Your task to perform on an android device: Go to Google Image 0: 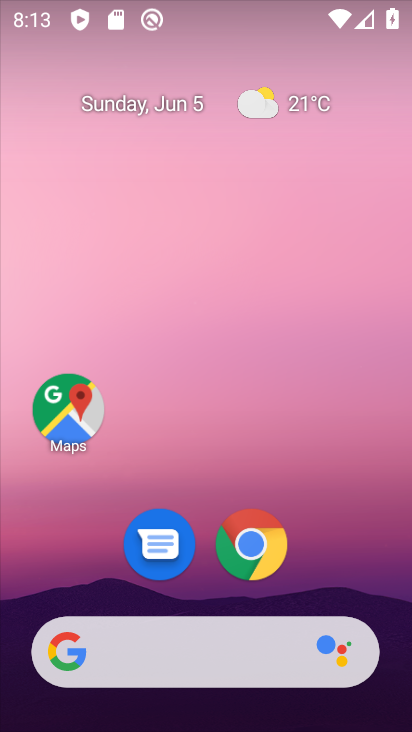
Step 0: drag from (393, 672) to (348, 125)
Your task to perform on an android device: Go to Google Image 1: 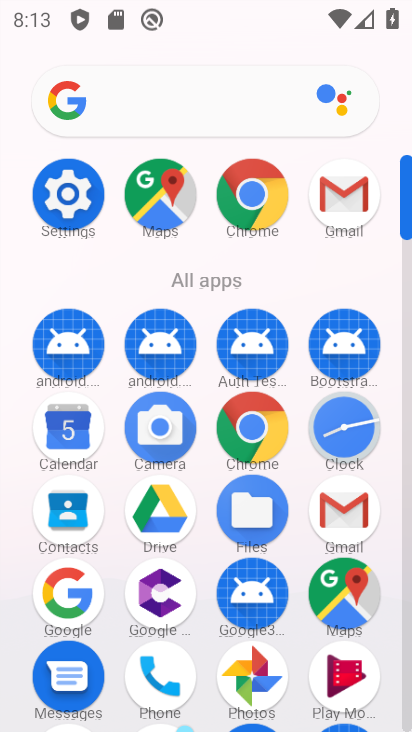
Step 1: drag from (198, 643) to (199, 283)
Your task to perform on an android device: Go to Google Image 2: 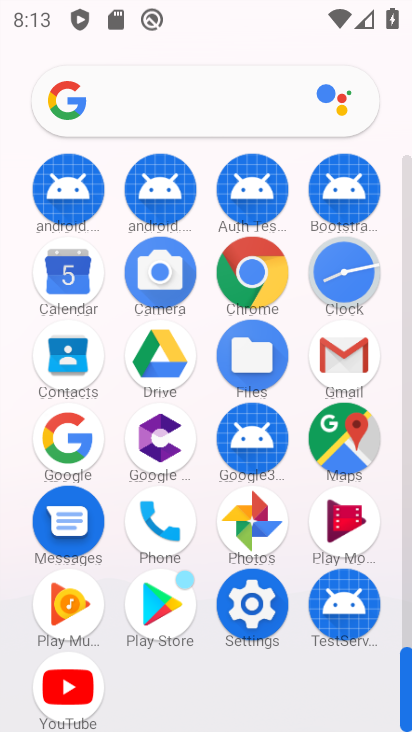
Step 2: click (61, 437)
Your task to perform on an android device: Go to Google Image 3: 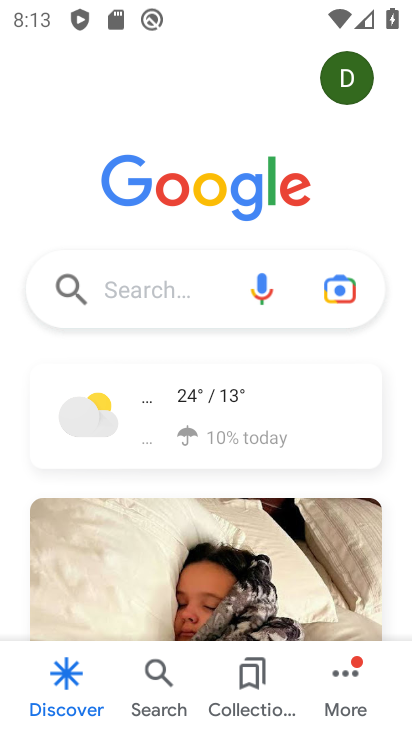
Step 3: task complete